Your task to perform on an android device: open the mobile data screen to see how much data has been used Image 0: 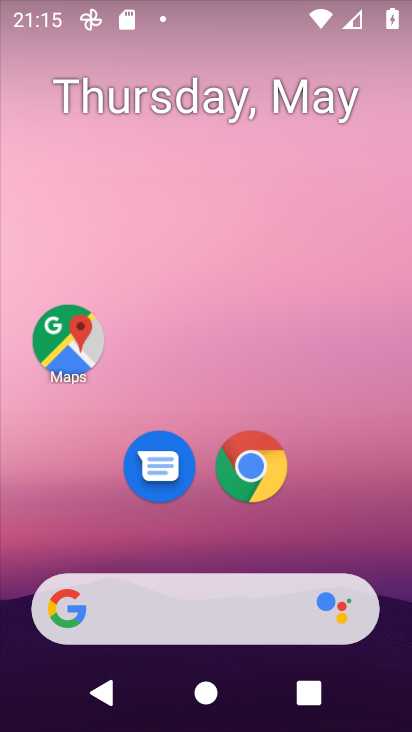
Step 0: drag from (369, 518) to (297, 192)
Your task to perform on an android device: open the mobile data screen to see how much data has been used Image 1: 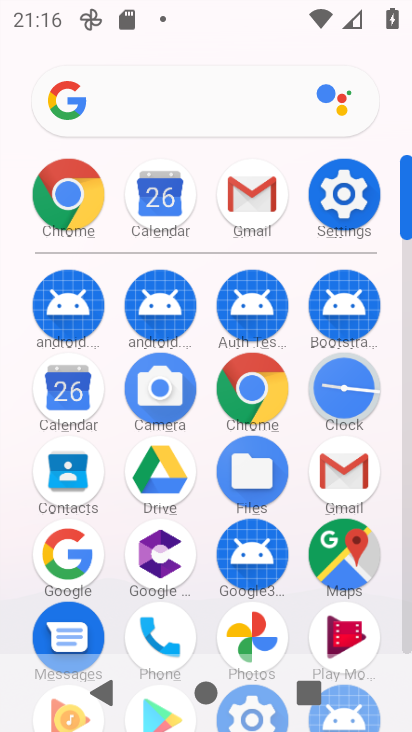
Step 1: click (340, 216)
Your task to perform on an android device: open the mobile data screen to see how much data has been used Image 2: 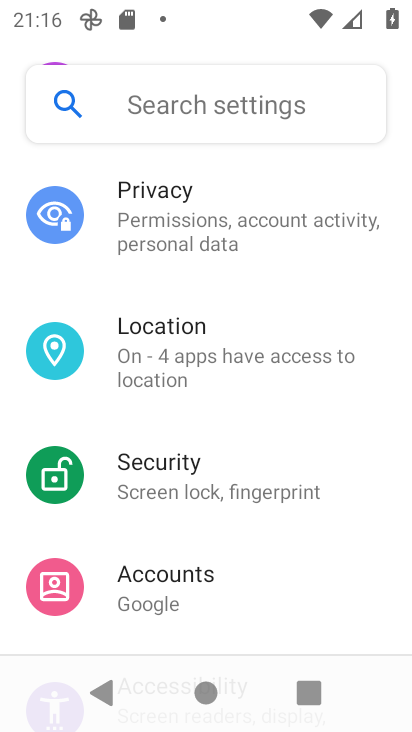
Step 2: drag from (250, 250) to (283, 638)
Your task to perform on an android device: open the mobile data screen to see how much data has been used Image 3: 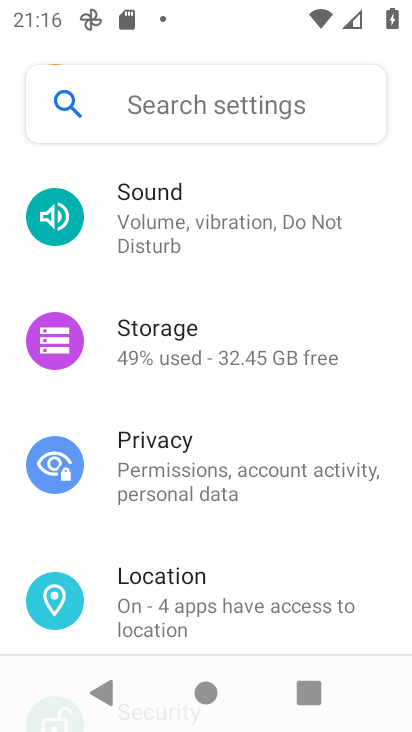
Step 3: drag from (262, 281) to (313, 655)
Your task to perform on an android device: open the mobile data screen to see how much data has been used Image 4: 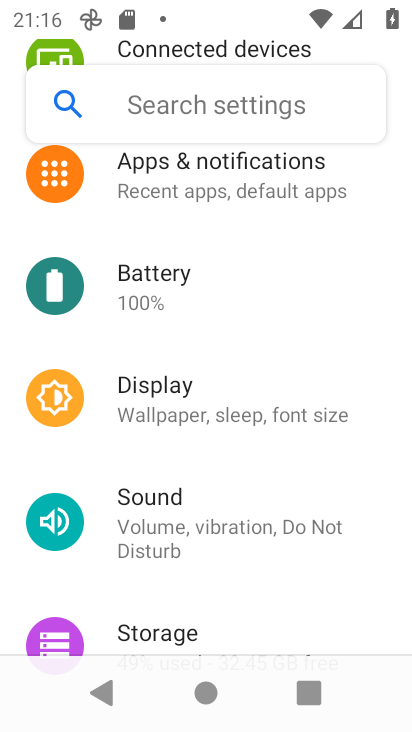
Step 4: drag from (254, 199) to (279, 688)
Your task to perform on an android device: open the mobile data screen to see how much data has been used Image 5: 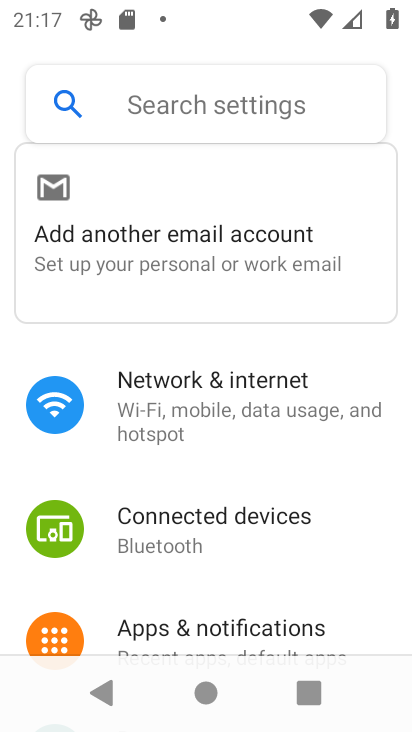
Step 5: click (280, 378)
Your task to perform on an android device: open the mobile data screen to see how much data has been used Image 6: 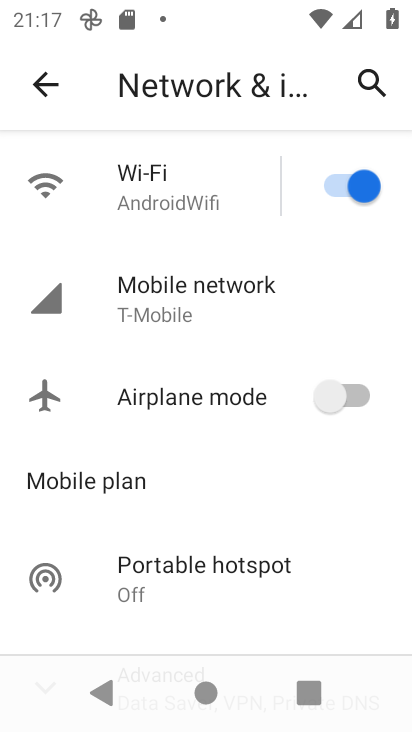
Step 6: task complete